Your task to perform on an android device: Open CNN.com Image 0: 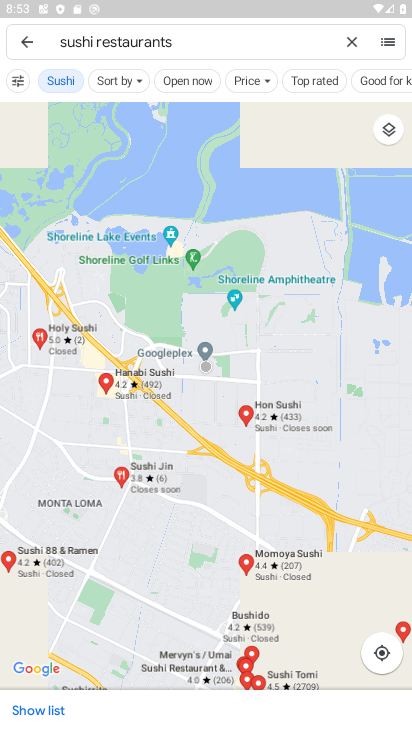
Step 0: press home button
Your task to perform on an android device: Open CNN.com Image 1: 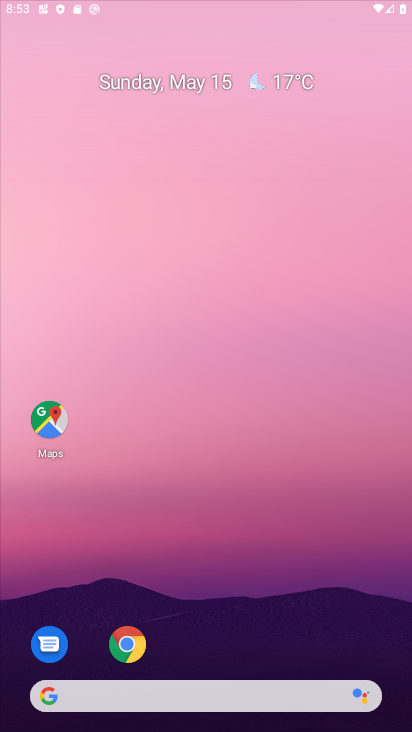
Step 1: drag from (227, 710) to (219, 277)
Your task to perform on an android device: Open CNN.com Image 2: 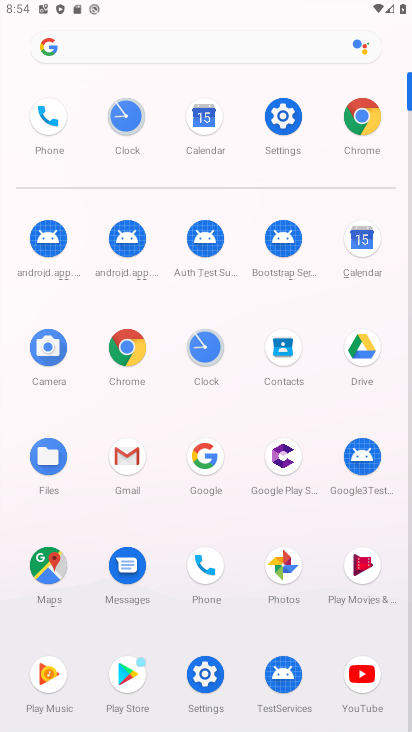
Step 2: click (367, 126)
Your task to perform on an android device: Open CNN.com Image 3: 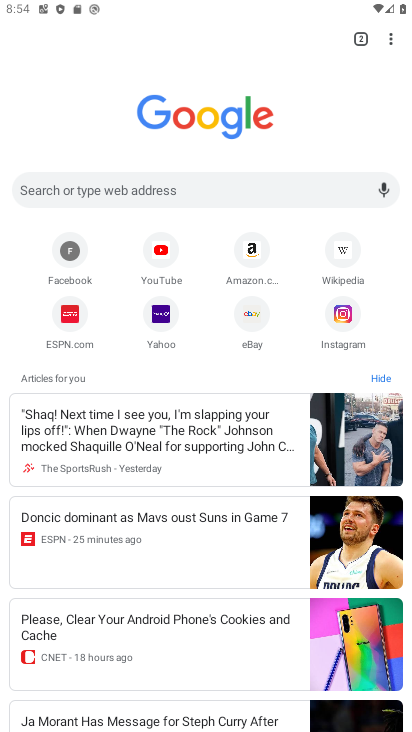
Step 3: click (153, 183)
Your task to perform on an android device: Open CNN.com Image 4: 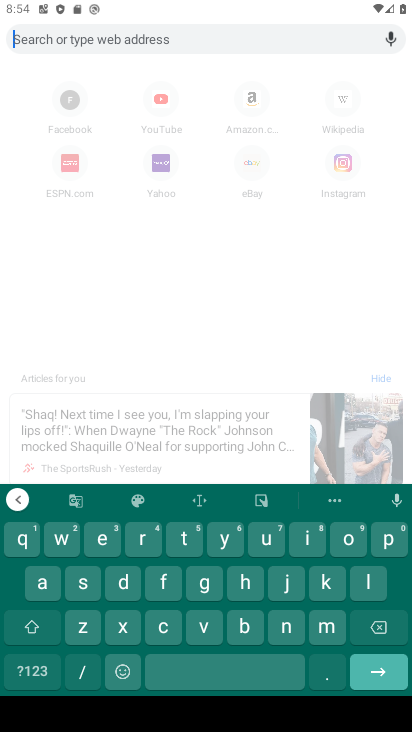
Step 4: click (160, 623)
Your task to perform on an android device: Open CNN.com Image 5: 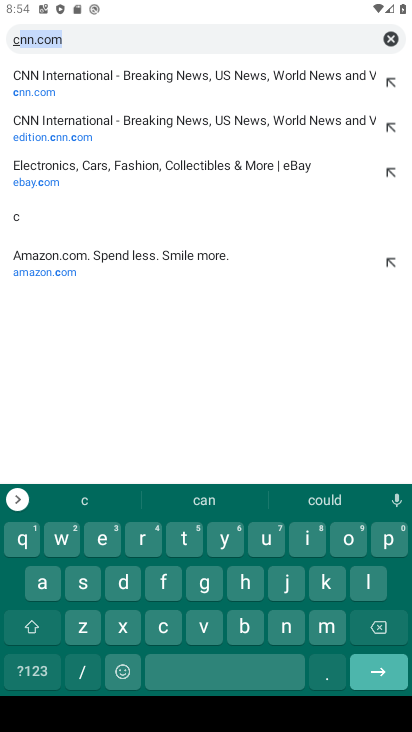
Step 5: click (97, 42)
Your task to perform on an android device: Open CNN.com Image 6: 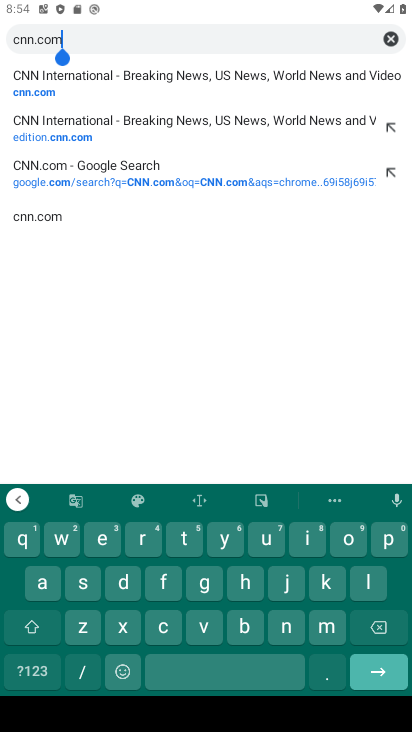
Step 6: click (389, 673)
Your task to perform on an android device: Open CNN.com Image 7: 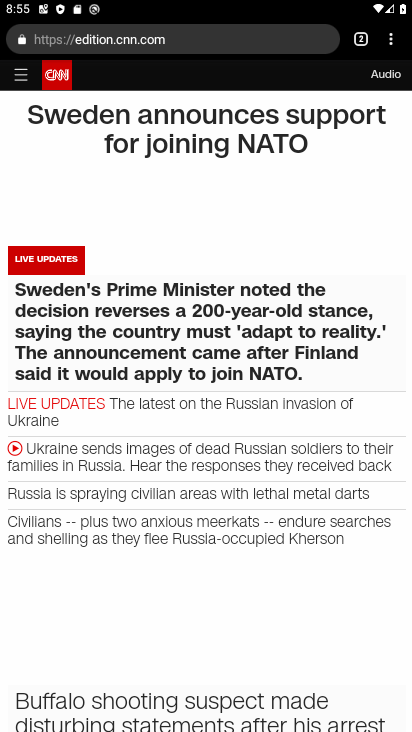
Step 7: task complete